Your task to perform on an android device: change the upload size in google photos Image 0: 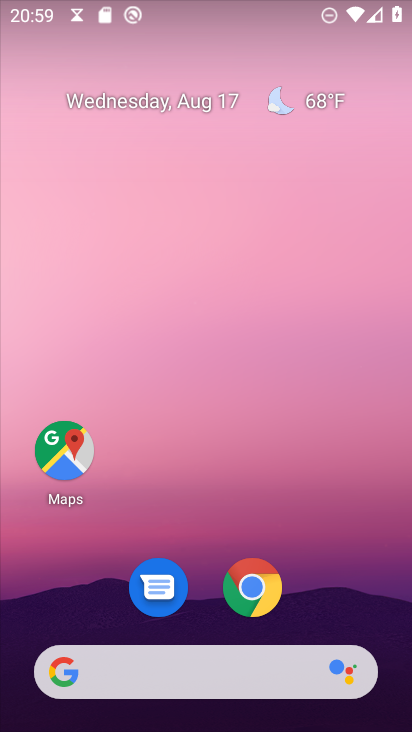
Step 0: drag from (13, 692) to (211, 245)
Your task to perform on an android device: change the upload size in google photos Image 1: 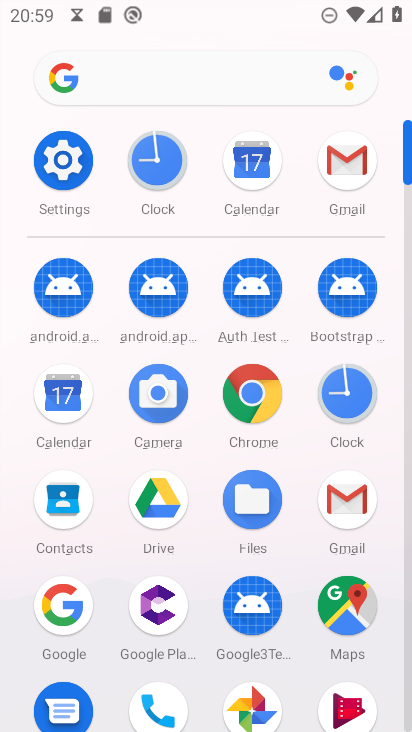
Step 1: click (248, 705)
Your task to perform on an android device: change the upload size in google photos Image 2: 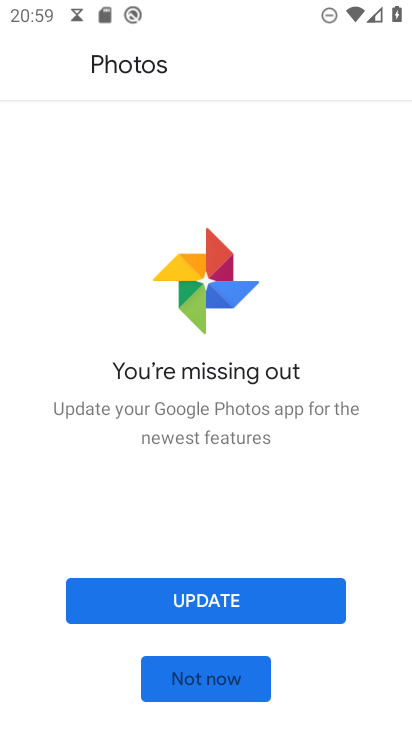
Step 2: click (128, 669)
Your task to perform on an android device: change the upload size in google photos Image 3: 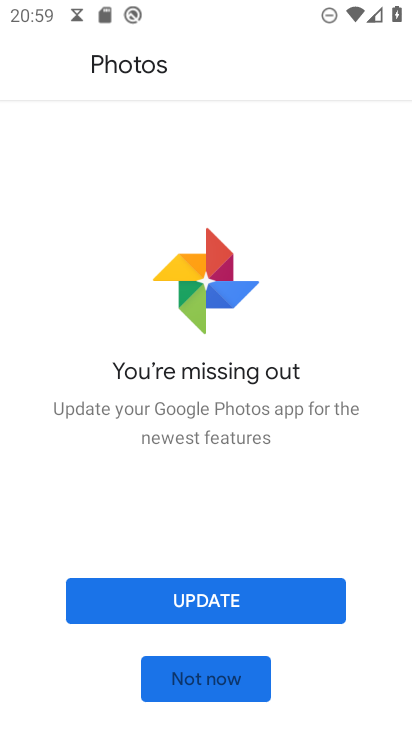
Step 3: click (190, 670)
Your task to perform on an android device: change the upload size in google photos Image 4: 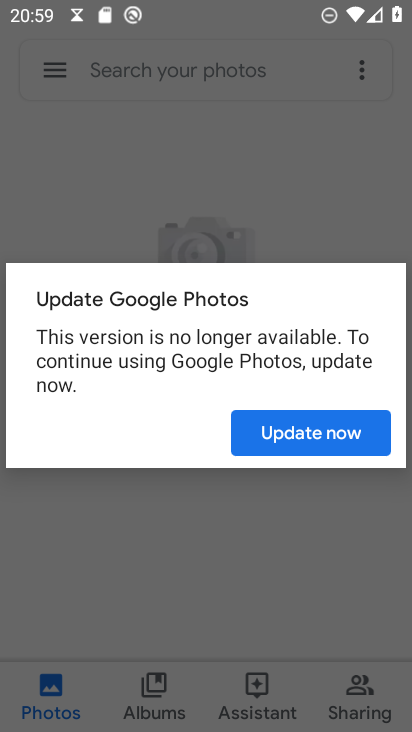
Step 4: click (296, 415)
Your task to perform on an android device: change the upload size in google photos Image 5: 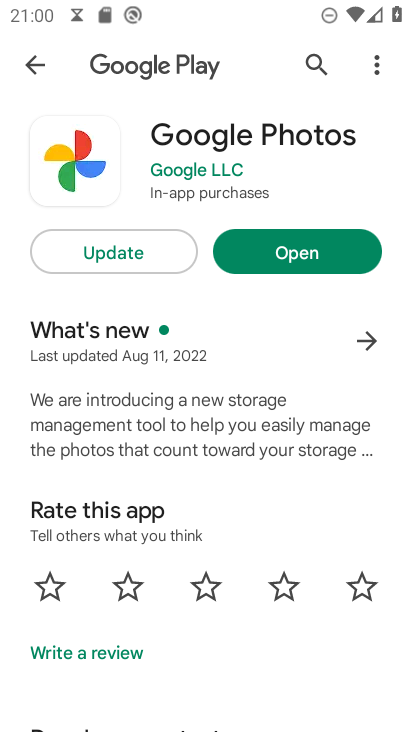
Step 5: click (128, 264)
Your task to perform on an android device: change the upload size in google photos Image 6: 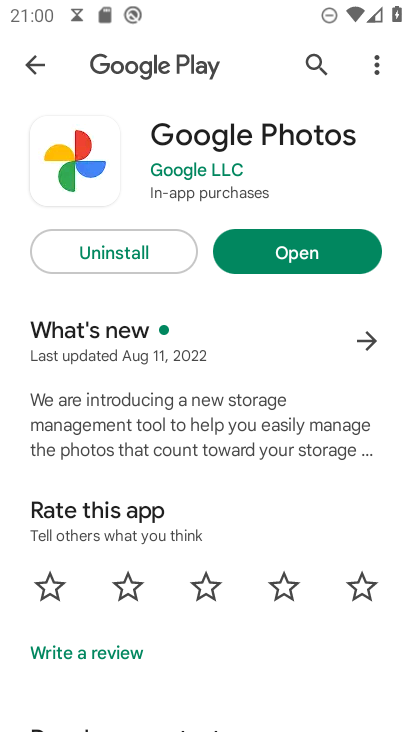
Step 6: click (292, 251)
Your task to perform on an android device: change the upload size in google photos Image 7: 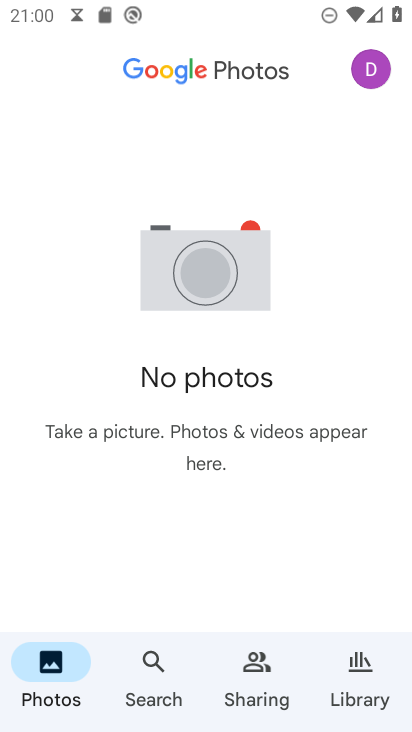
Step 7: click (371, 81)
Your task to perform on an android device: change the upload size in google photos Image 8: 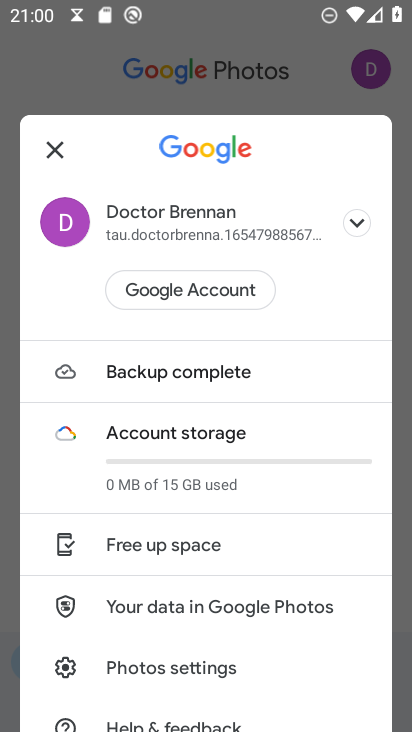
Step 8: click (165, 664)
Your task to perform on an android device: change the upload size in google photos Image 9: 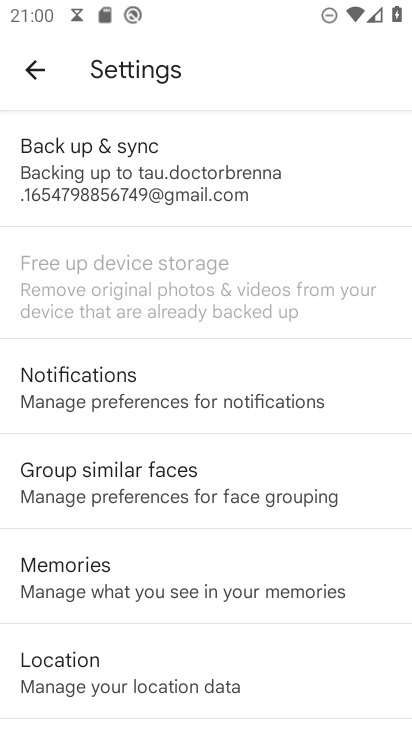
Step 9: click (161, 179)
Your task to perform on an android device: change the upload size in google photos Image 10: 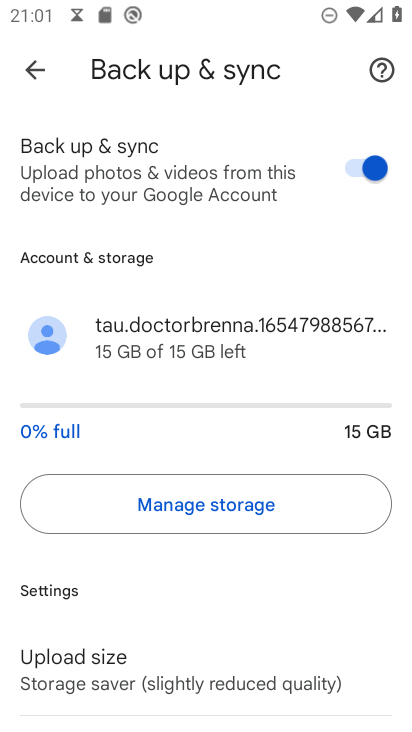
Step 10: click (103, 679)
Your task to perform on an android device: change the upload size in google photos Image 11: 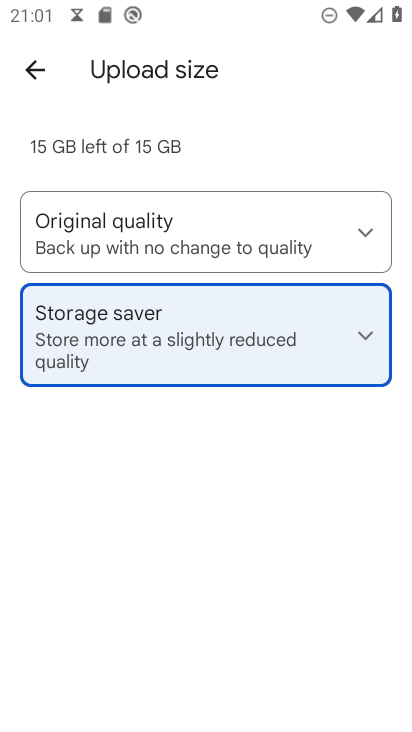
Step 11: click (124, 231)
Your task to perform on an android device: change the upload size in google photos Image 12: 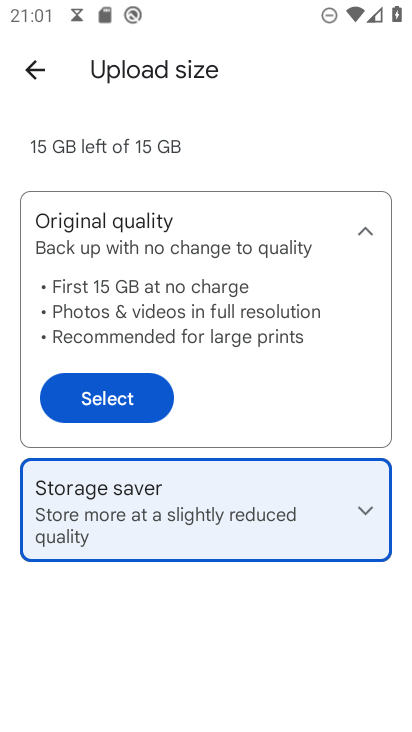
Step 12: click (119, 397)
Your task to perform on an android device: change the upload size in google photos Image 13: 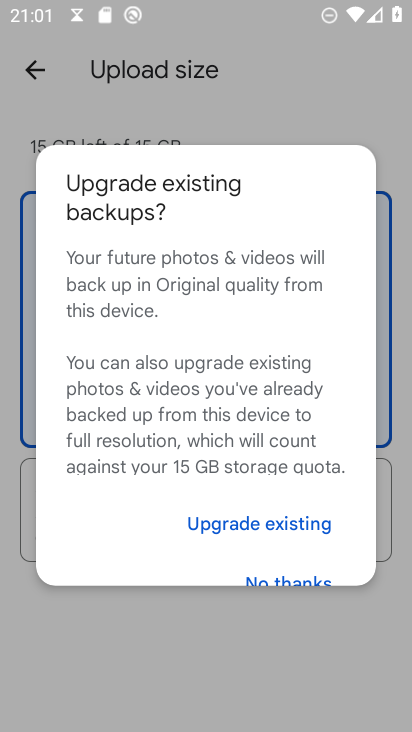
Step 13: task complete